Your task to perform on an android device: turn notification dots on Image 0: 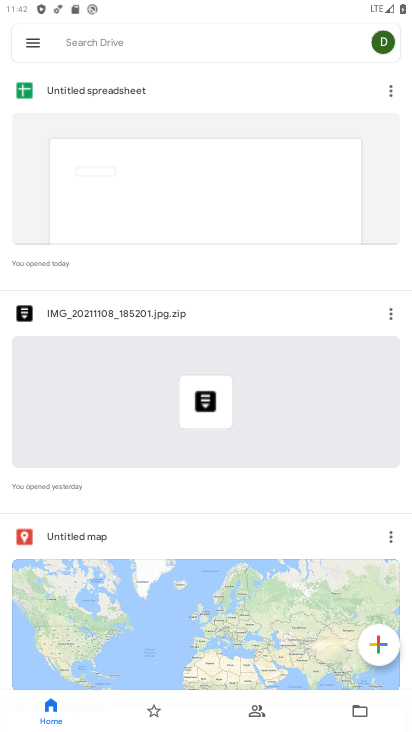
Step 0: press home button
Your task to perform on an android device: turn notification dots on Image 1: 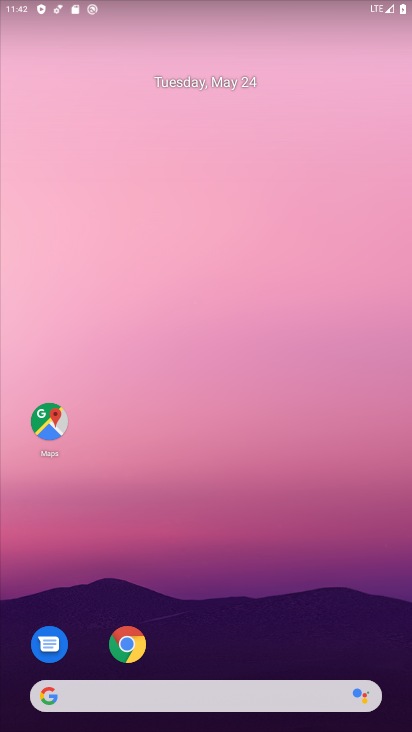
Step 1: drag from (108, 74) to (95, 41)
Your task to perform on an android device: turn notification dots on Image 2: 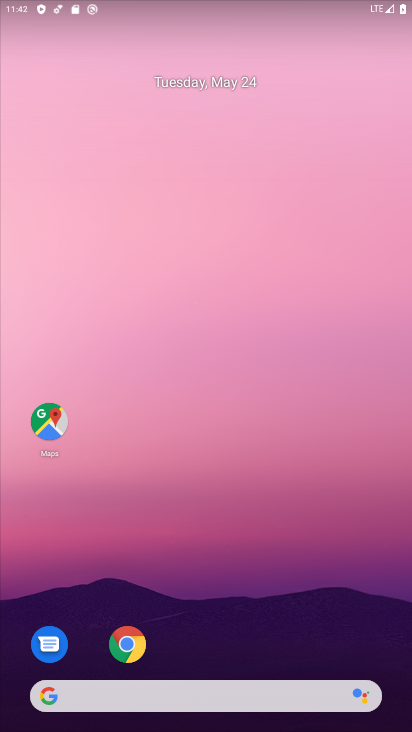
Step 2: drag from (207, 564) to (163, 147)
Your task to perform on an android device: turn notification dots on Image 3: 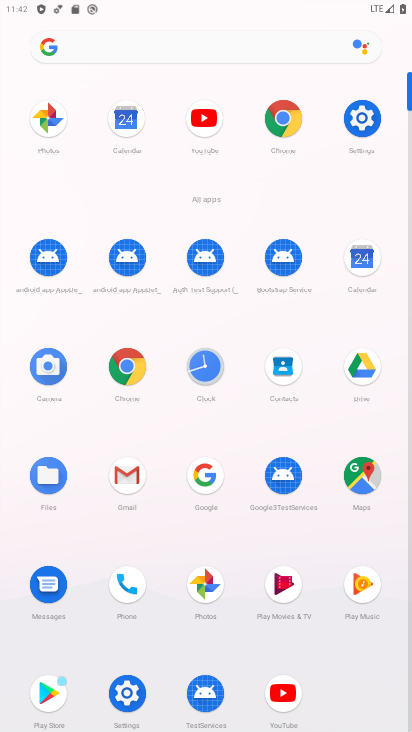
Step 3: click (359, 118)
Your task to perform on an android device: turn notification dots on Image 4: 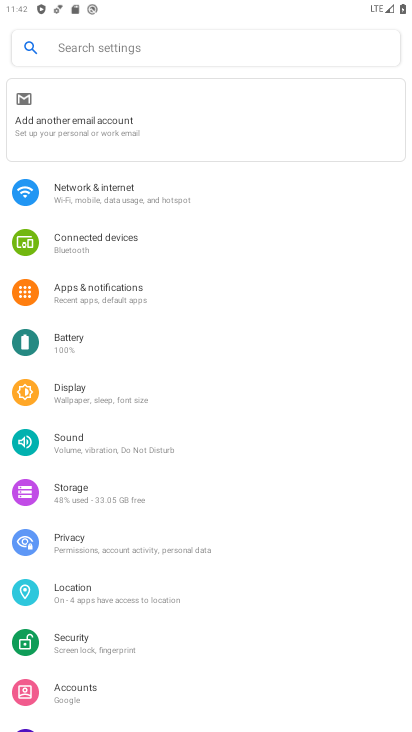
Step 4: click (84, 289)
Your task to perform on an android device: turn notification dots on Image 5: 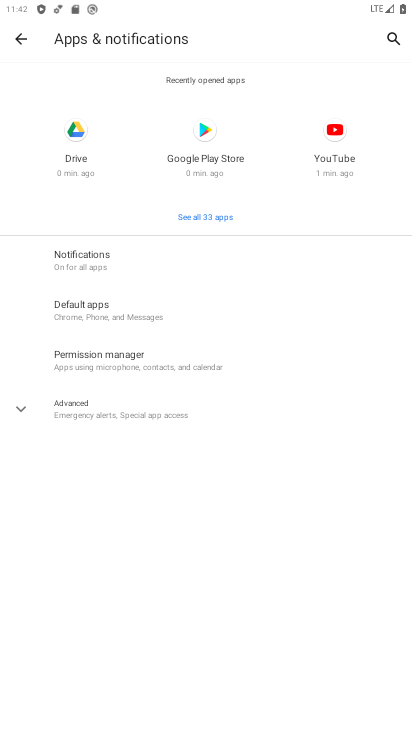
Step 5: click (78, 255)
Your task to perform on an android device: turn notification dots on Image 6: 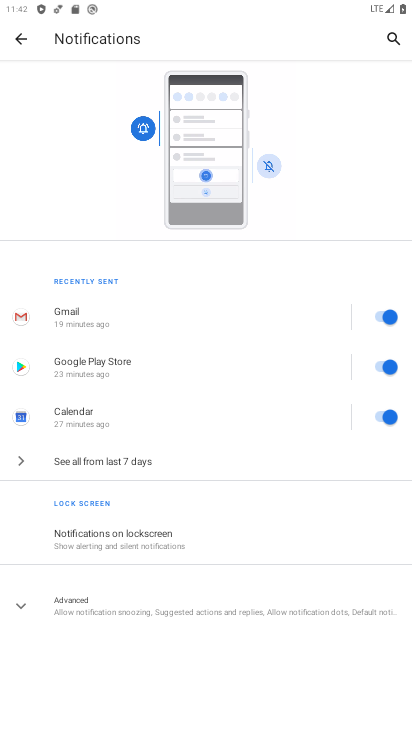
Step 6: click (18, 600)
Your task to perform on an android device: turn notification dots on Image 7: 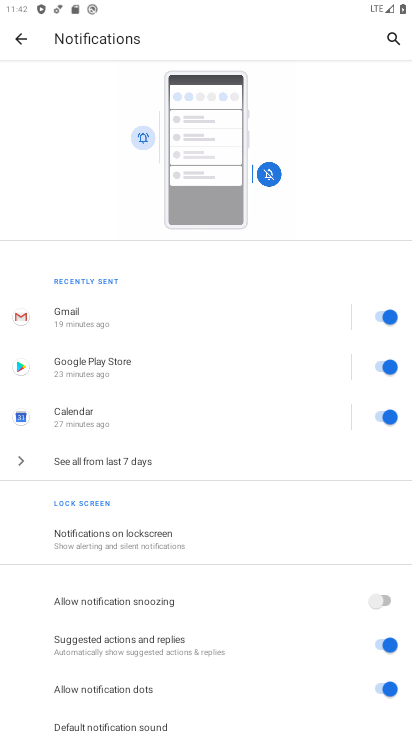
Step 7: task complete